Your task to perform on an android device: Open Android settings Image 0: 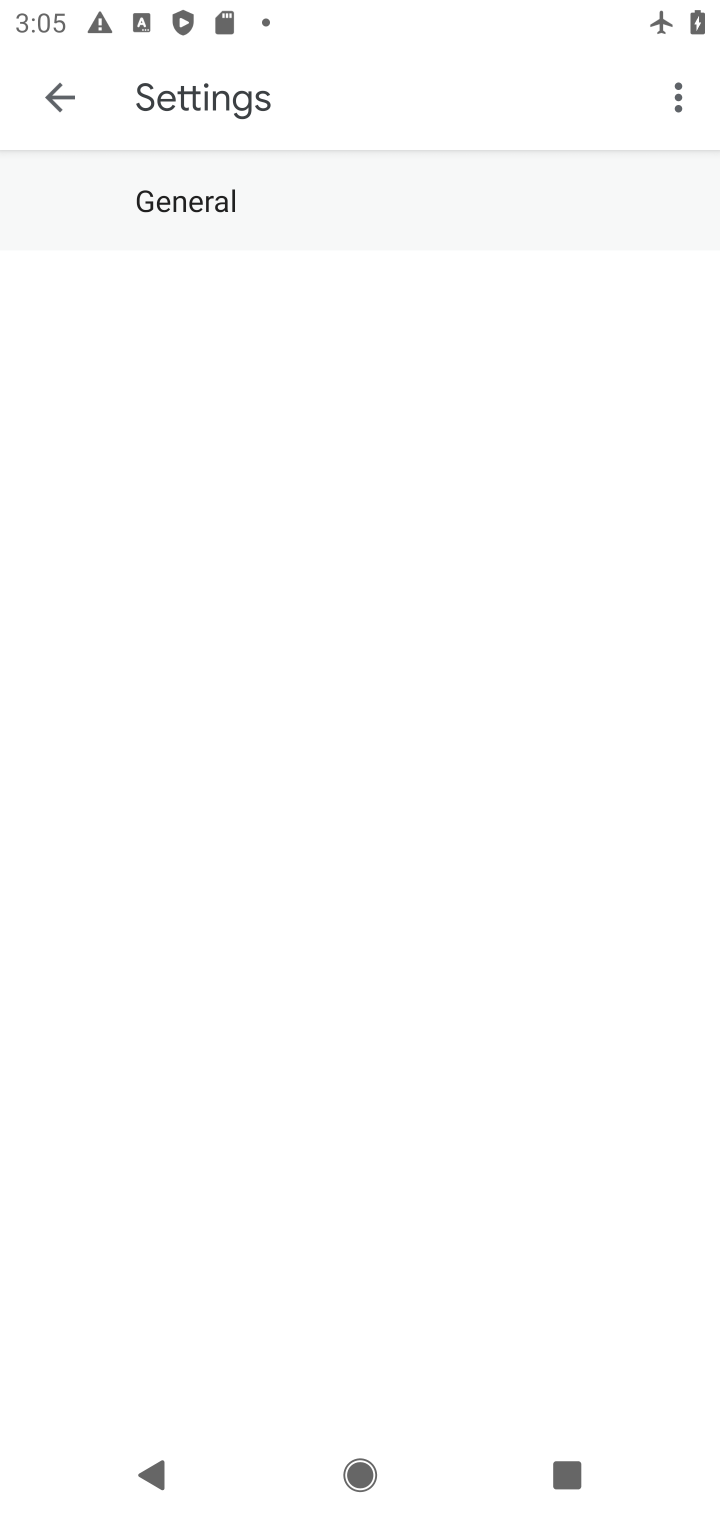
Step 0: press home button
Your task to perform on an android device: Open Android settings Image 1: 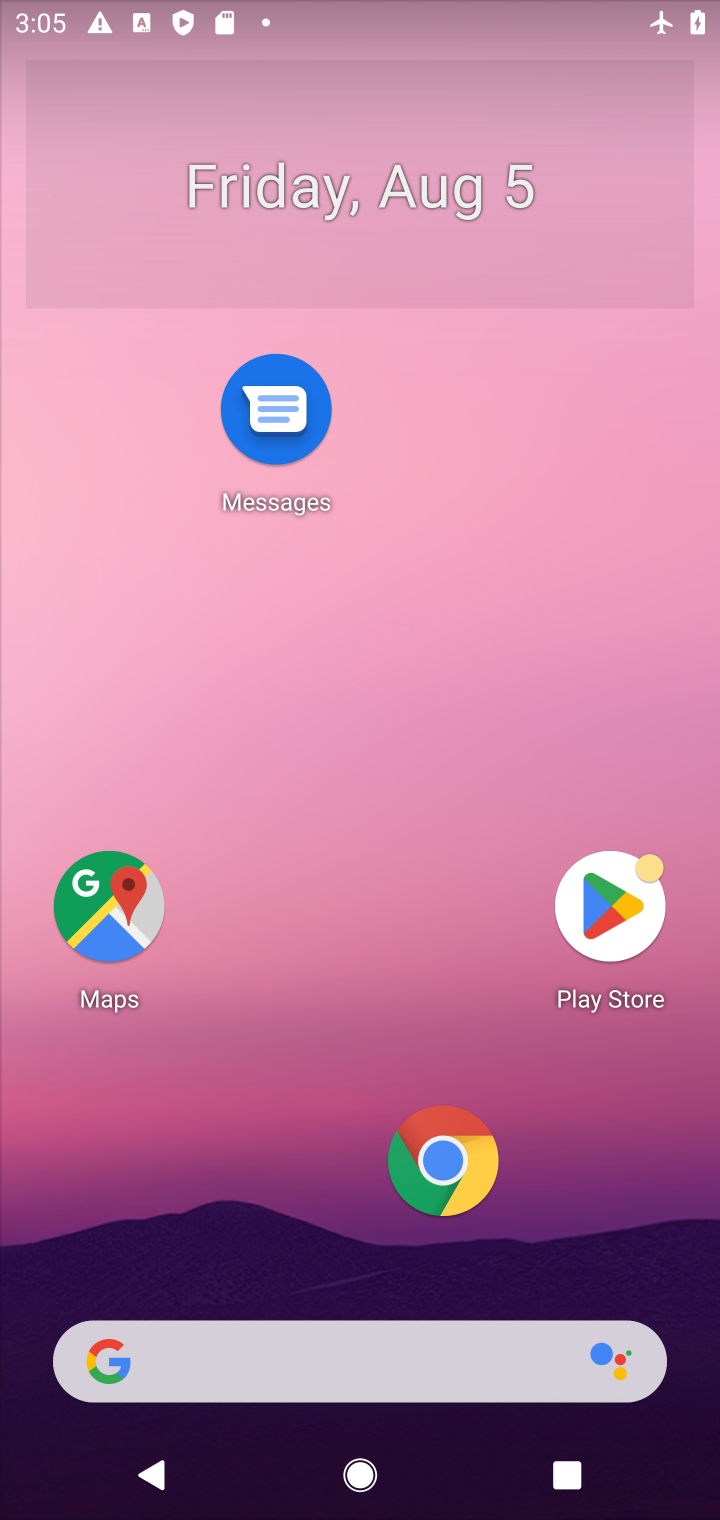
Step 1: drag from (307, 1154) to (416, 48)
Your task to perform on an android device: Open Android settings Image 2: 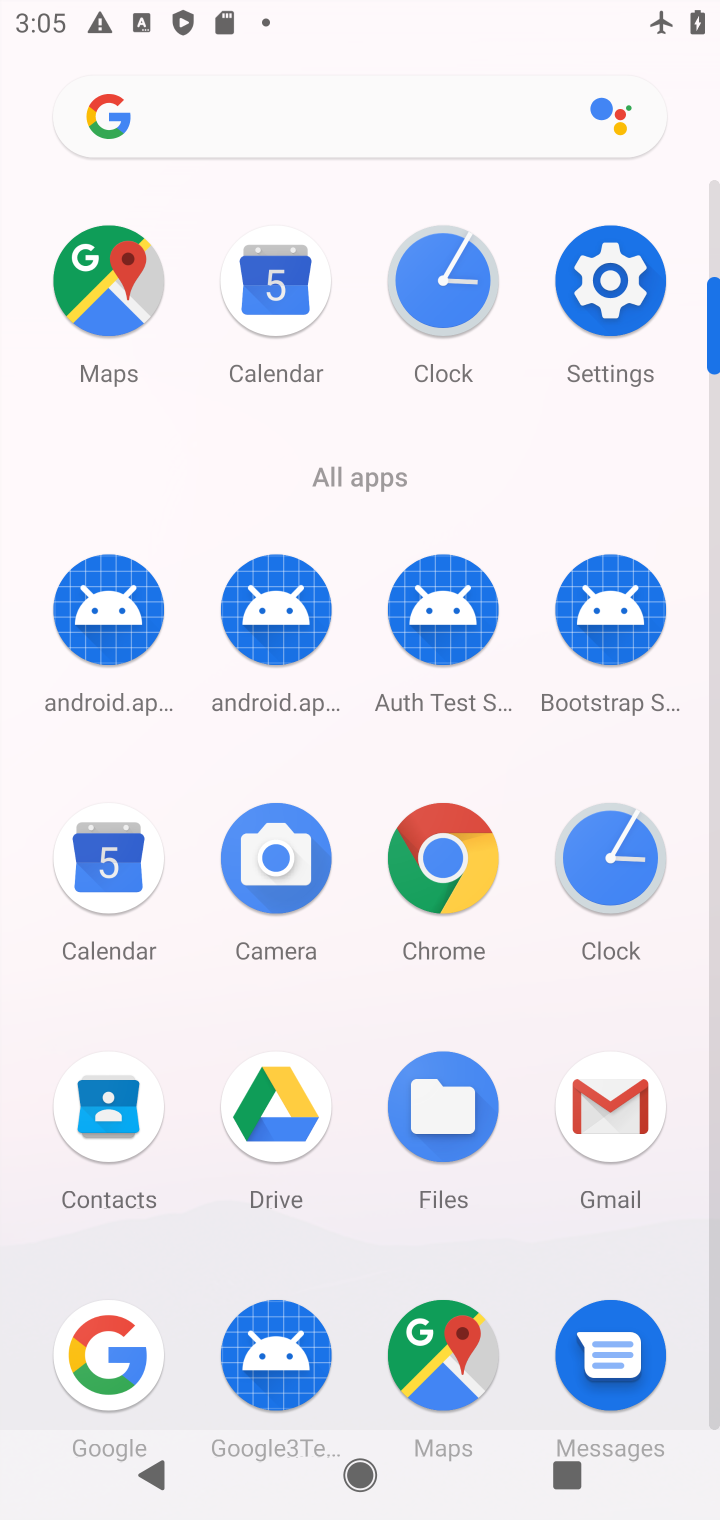
Step 2: click (607, 314)
Your task to perform on an android device: Open Android settings Image 3: 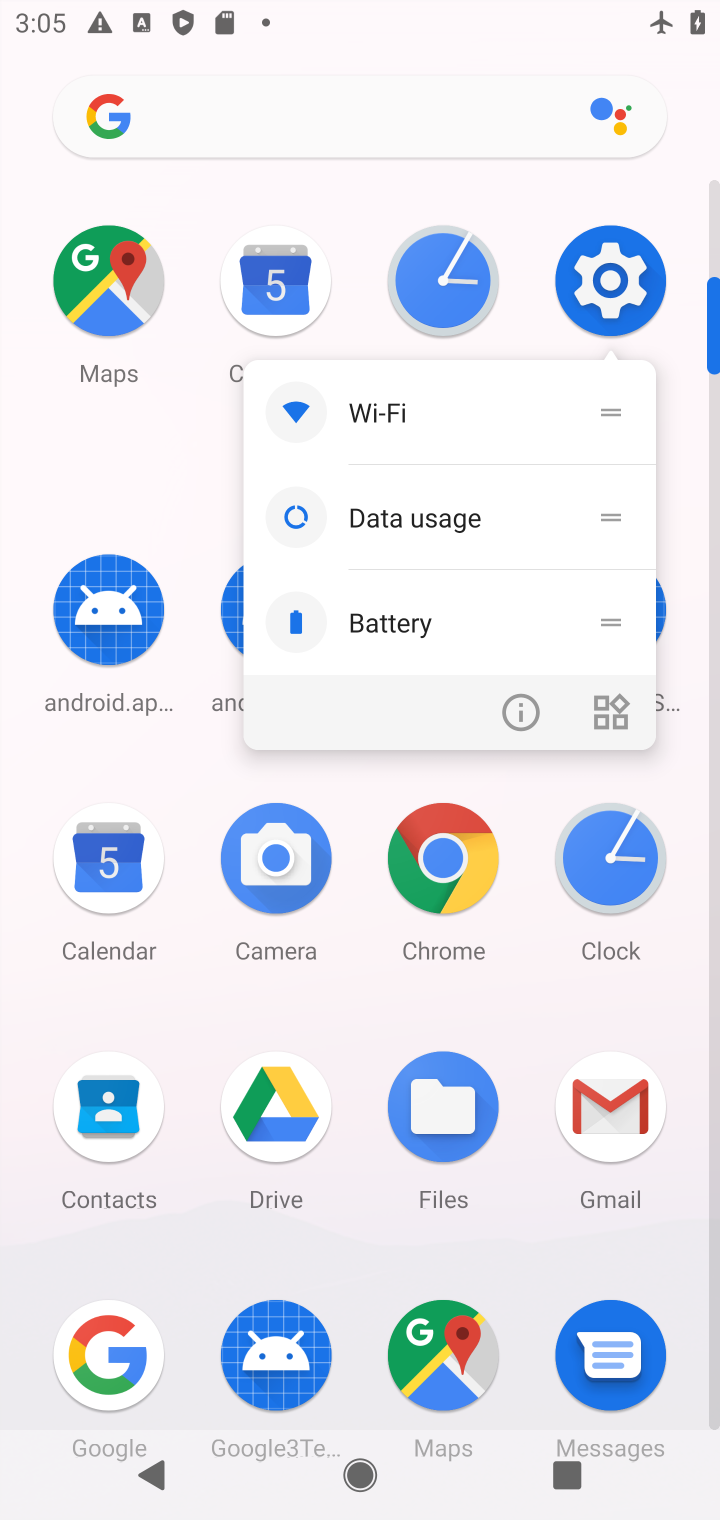
Step 3: click (599, 272)
Your task to perform on an android device: Open Android settings Image 4: 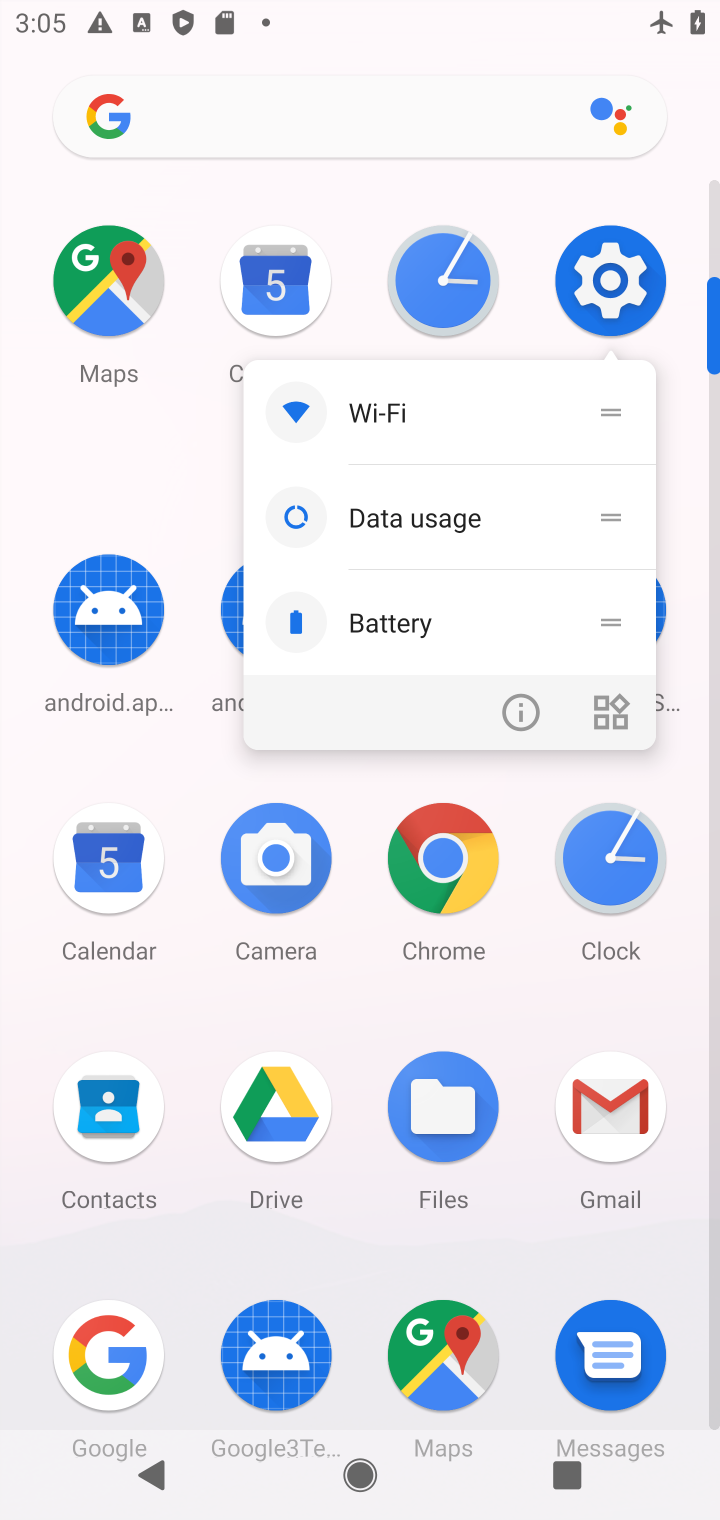
Step 4: click (599, 272)
Your task to perform on an android device: Open Android settings Image 5: 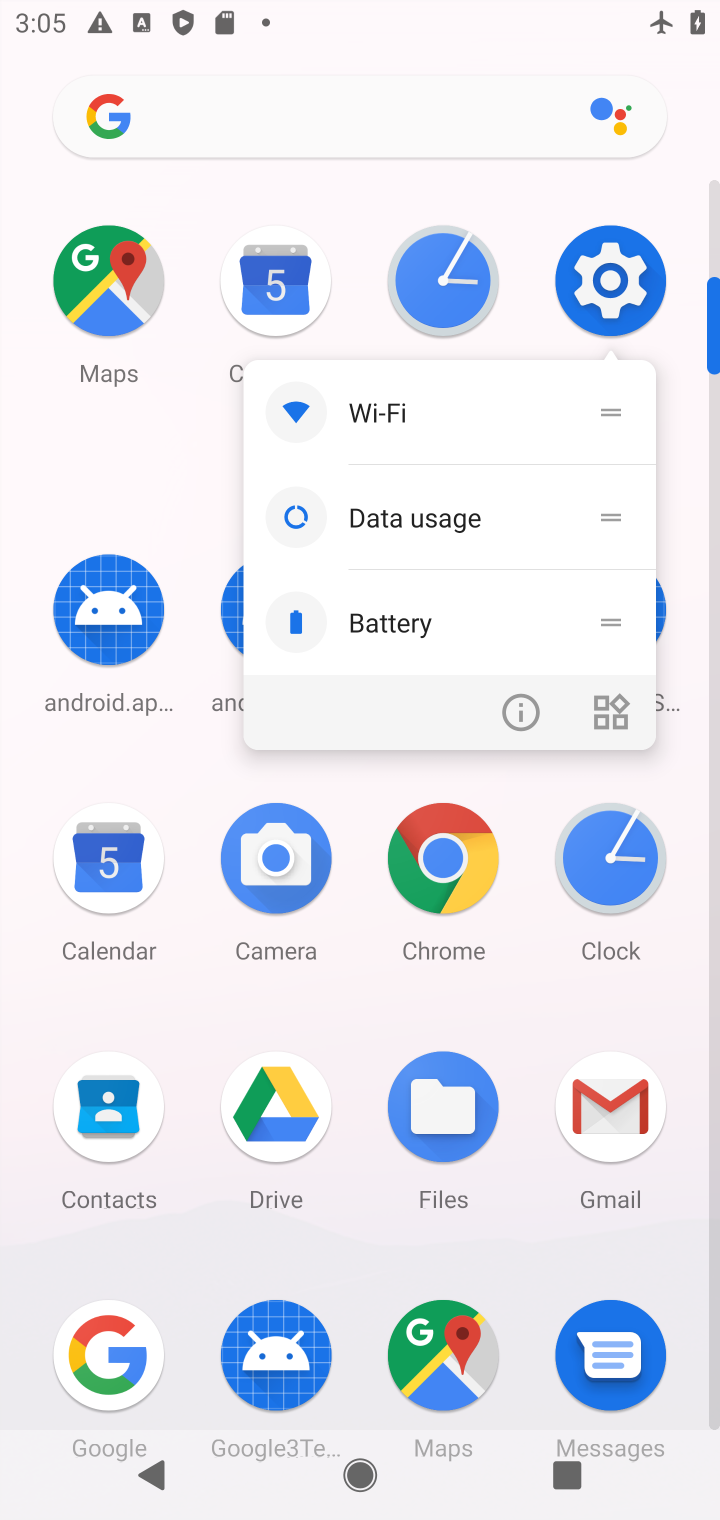
Step 5: click (599, 272)
Your task to perform on an android device: Open Android settings Image 6: 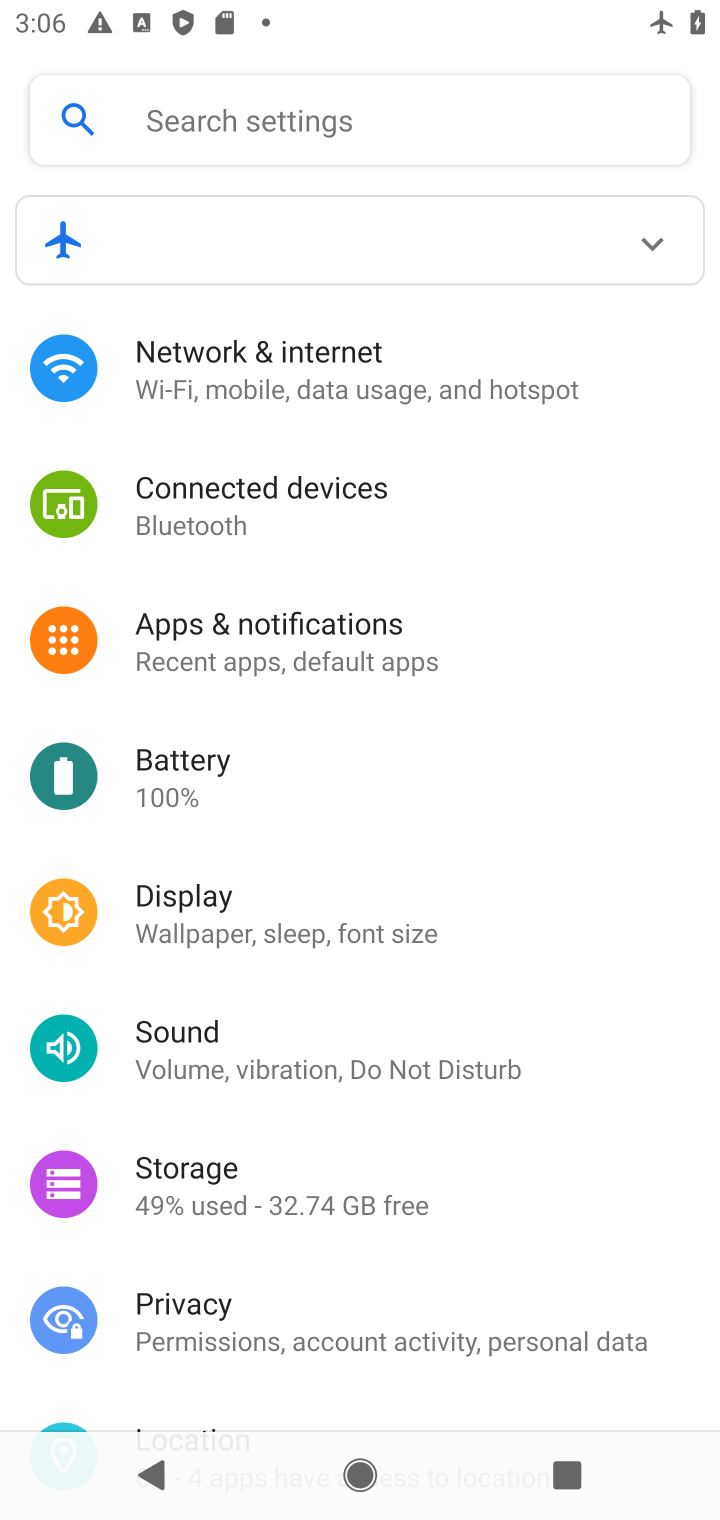
Step 6: task complete